Your task to perform on an android device: turn off translation in the chrome app Image 0: 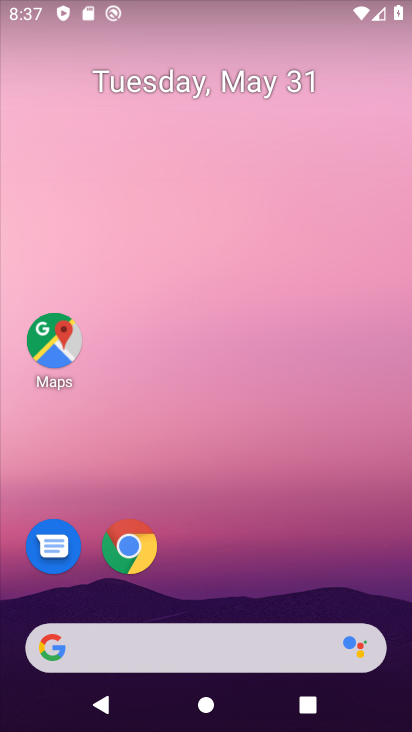
Step 0: click (135, 548)
Your task to perform on an android device: turn off translation in the chrome app Image 1: 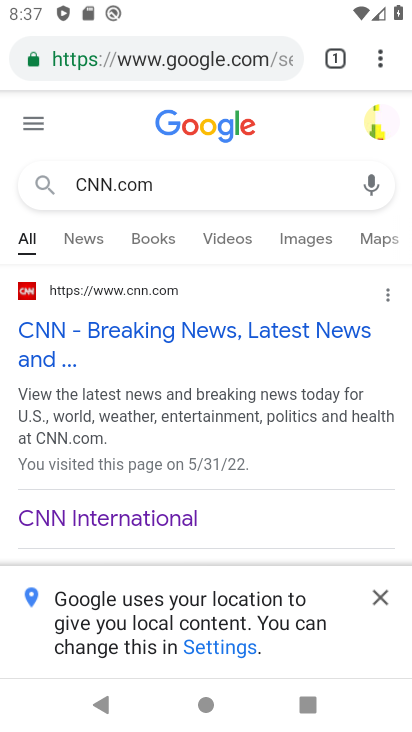
Step 1: click (377, 60)
Your task to perform on an android device: turn off translation in the chrome app Image 2: 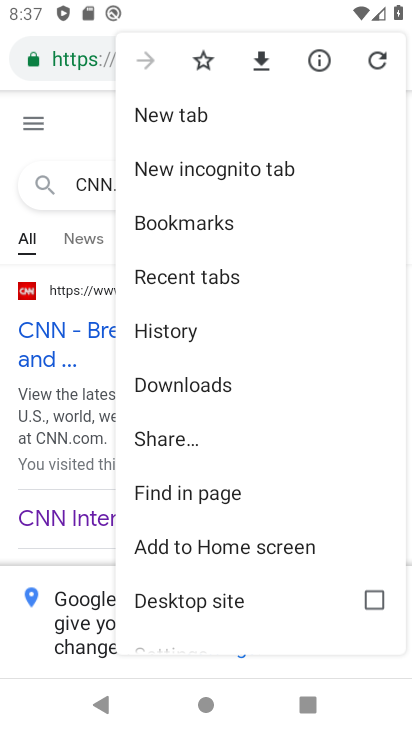
Step 2: drag from (327, 621) to (296, 253)
Your task to perform on an android device: turn off translation in the chrome app Image 3: 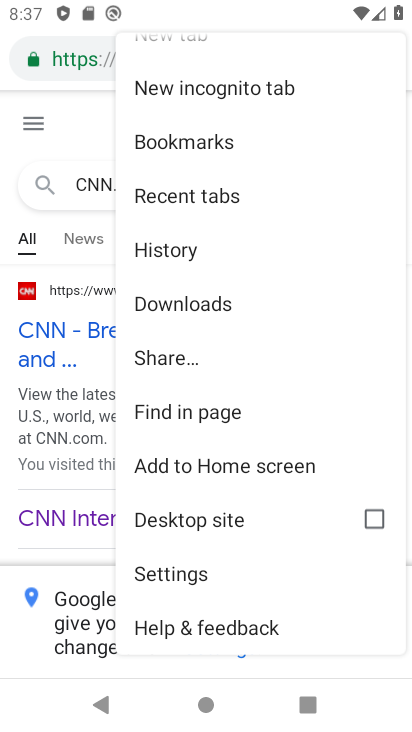
Step 3: drag from (334, 611) to (309, 254)
Your task to perform on an android device: turn off translation in the chrome app Image 4: 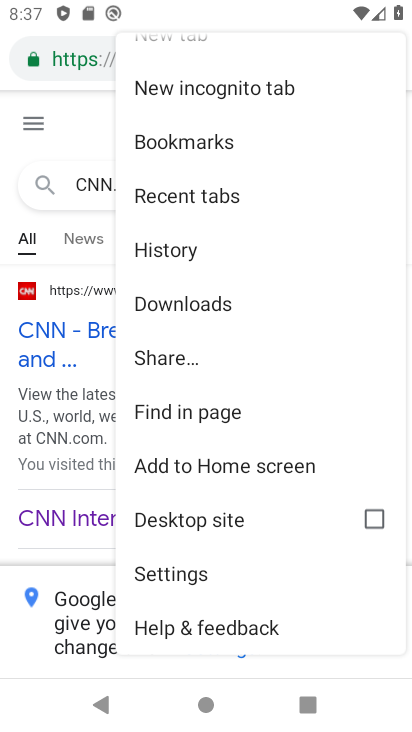
Step 4: click (183, 580)
Your task to perform on an android device: turn off translation in the chrome app Image 5: 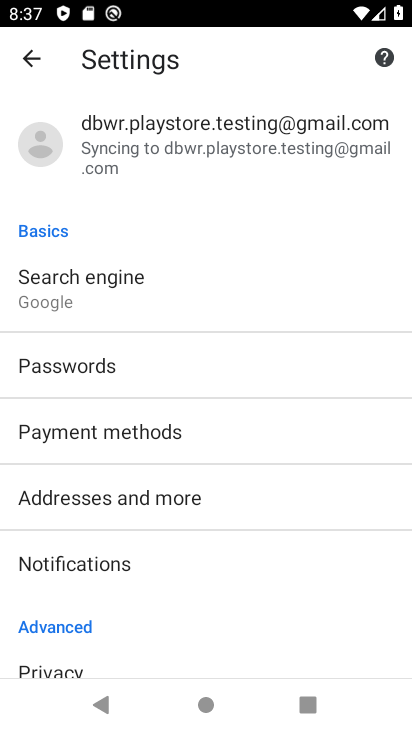
Step 5: drag from (266, 623) to (253, 255)
Your task to perform on an android device: turn off translation in the chrome app Image 6: 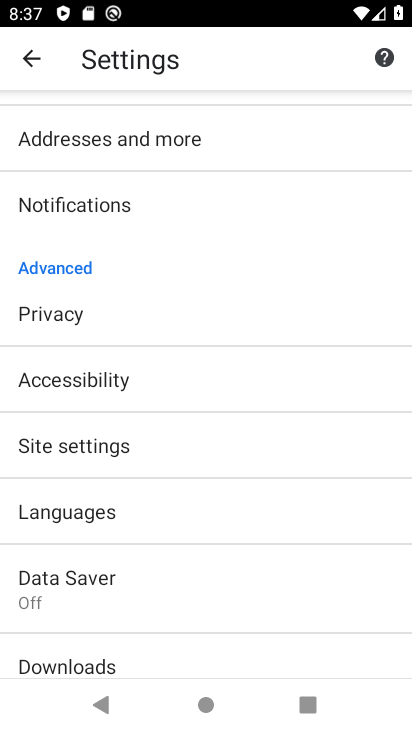
Step 6: click (65, 515)
Your task to perform on an android device: turn off translation in the chrome app Image 7: 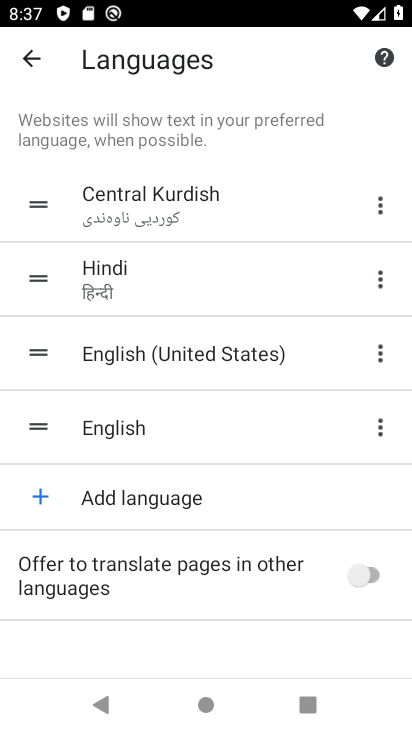
Step 7: click (373, 574)
Your task to perform on an android device: turn off translation in the chrome app Image 8: 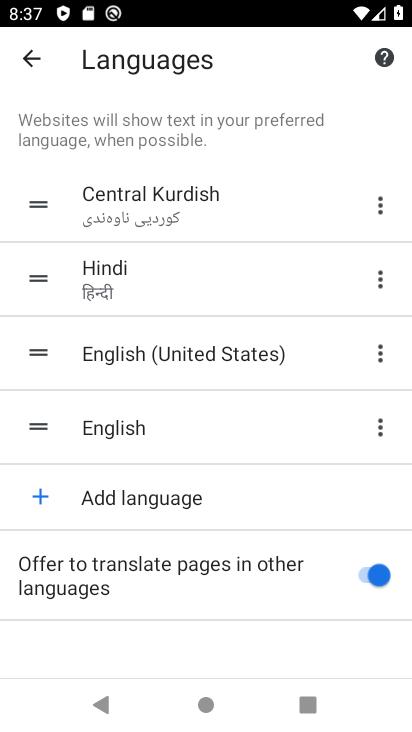
Step 8: click (360, 576)
Your task to perform on an android device: turn off translation in the chrome app Image 9: 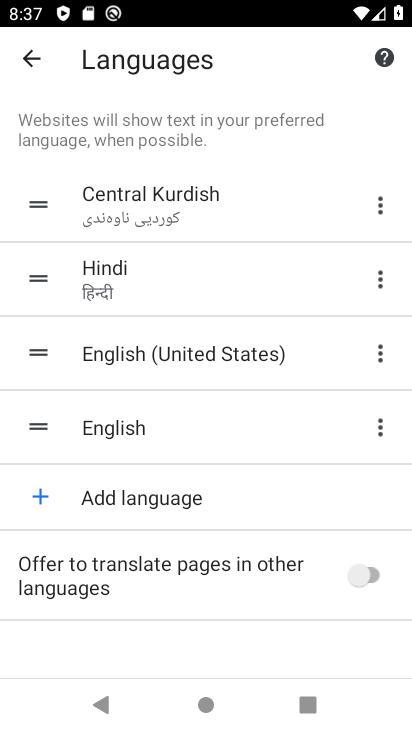
Step 9: task complete